Your task to perform on an android device: What's on my calendar today? Image 0: 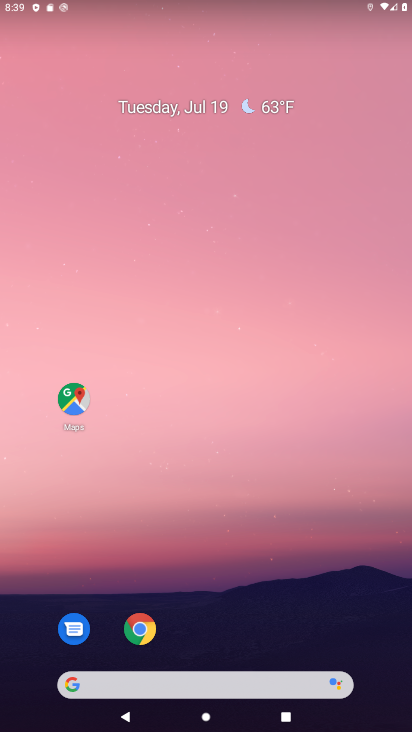
Step 0: press home button
Your task to perform on an android device: What's on my calendar today? Image 1: 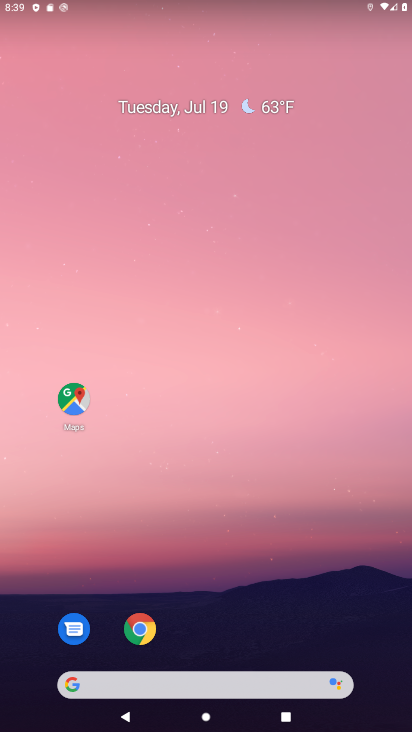
Step 1: drag from (210, 641) to (248, 28)
Your task to perform on an android device: What's on my calendar today? Image 2: 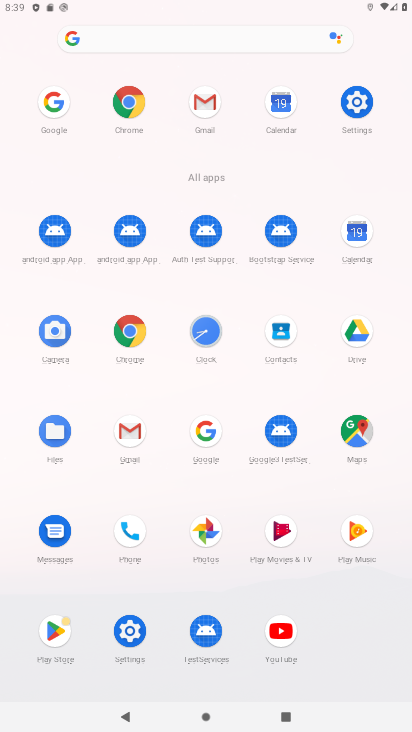
Step 2: click (357, 229)
Your task to perform on an android device: What's on my calendar today? Image 3: 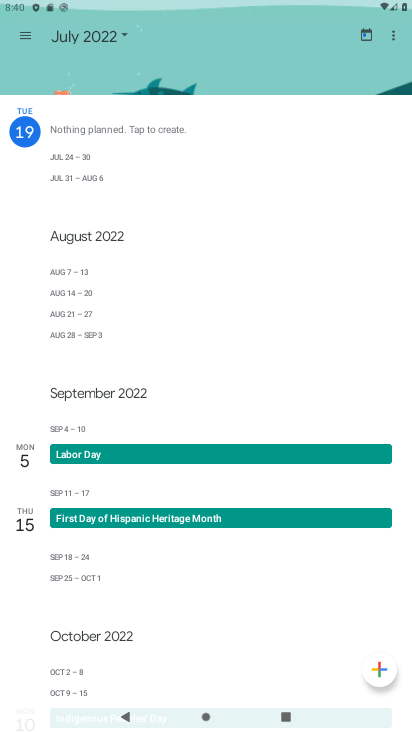
Step 3: click (22, 34)
Your task to perform on an android device: What's on my calendar today? Image 4: 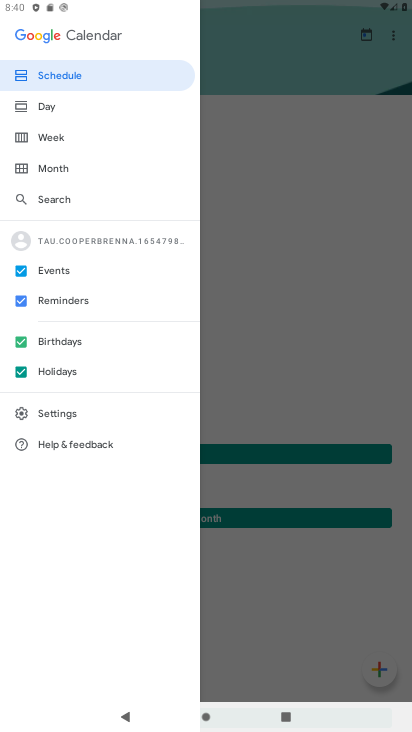
Step 4: click (309, 267)
Your task to perform on an android device: What's on my calendar today? Image 5: 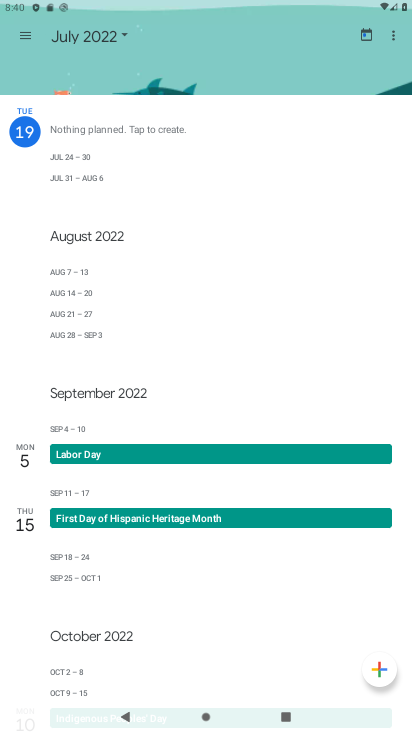
Step 5: click (30, 128)
Your task to perform on an android device: What's on my calendar today? Image 6: 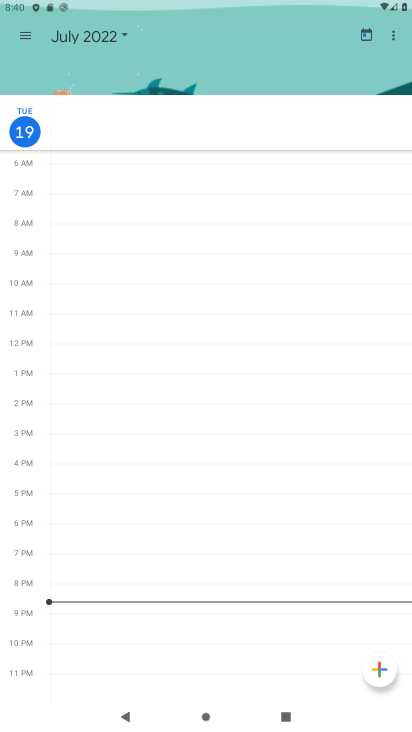
Step 6: task complete